Your task to perform on an android device: Search for 'The Girl on the Train' on Goodreads. Image 0: 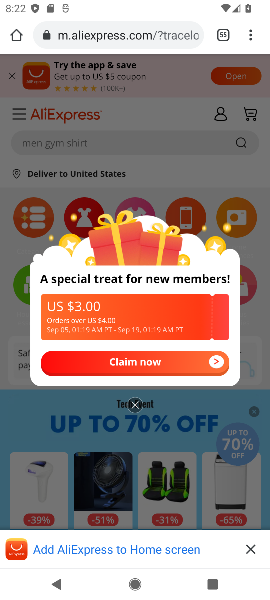
Step 0: press home button
Your task to perform on an android device: Search for 'The Girl on the Train' on Goodreads. Image 1: 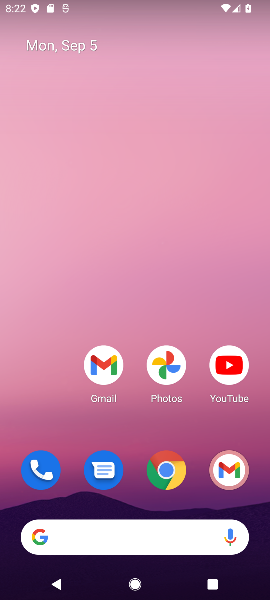
Step 1: click (79, 544)
Your task to perform on an android device: Search for 'The Girl on the Train' on Goodreads. Image 2: 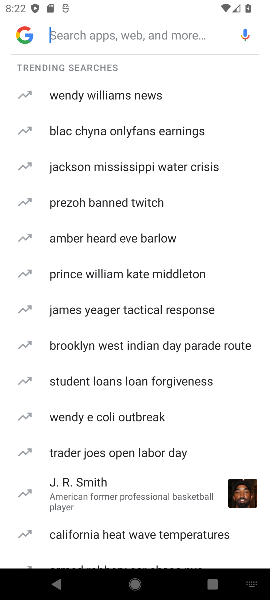
Step 2: type "goodreads"
Your task to perform on an android device: Search for 'The Girl on the Train' on Goodreads. Image 3: 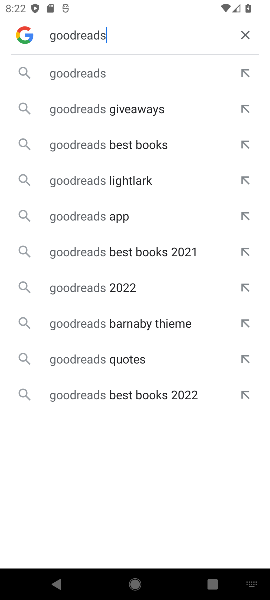
Step 3: click (85, 71)
Your task to perform on an android device: Search for 'The Girl on the Train' on Goodreads. Image 4: 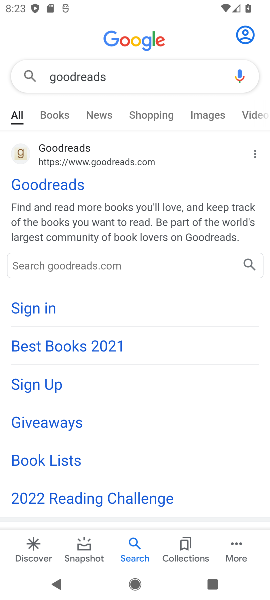
Step 4: click (54, 184)
Your task to perform on an android device: Search for 'The Girl on the Train' on Goodreads. Image 5: 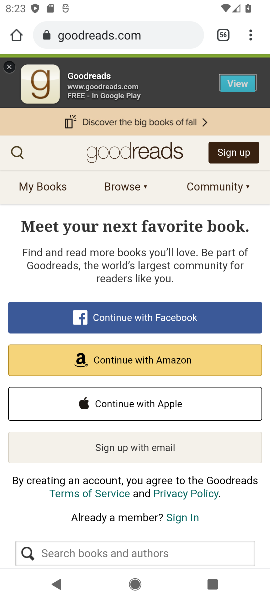
Step 5: click (17, 152)
Your task to perform on an android device: Search for 'The Girl on the Train' on Goodreads. Image 6: 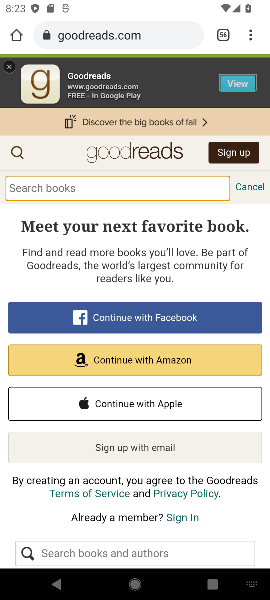
Step 6: type "the girl on the train"
Your task to perform on an android device: Search for 'The Girl on the Train' on Goodreads. Image 7: 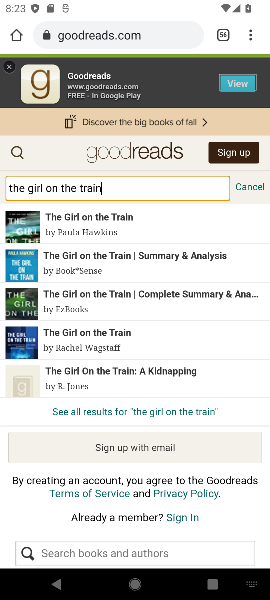
Step 7: click (128, 407)
Your task to perform on an android device: Search for 'The Girl on the Train' on Goodreads. Image 8: 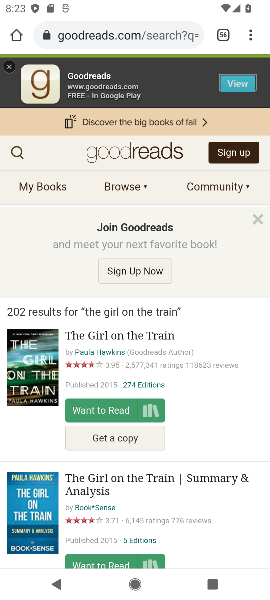
Step 8: task complete